Your task to perform on an android device: turn off javascript in the chrome app Image 0: 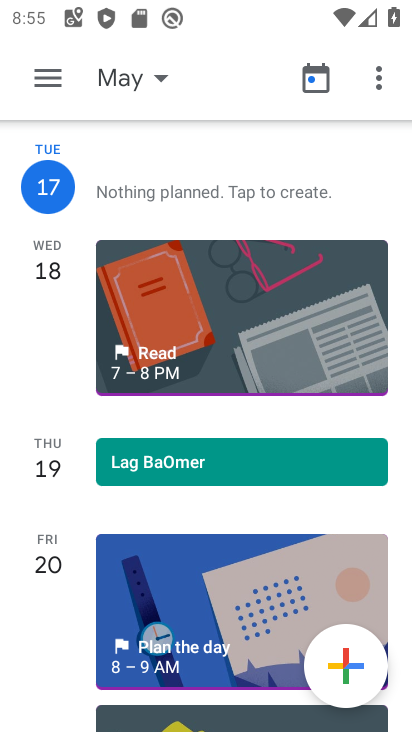
Step 0: press home button
Your task to perform on an android device: turn off javascript in the chrome app Image 1: 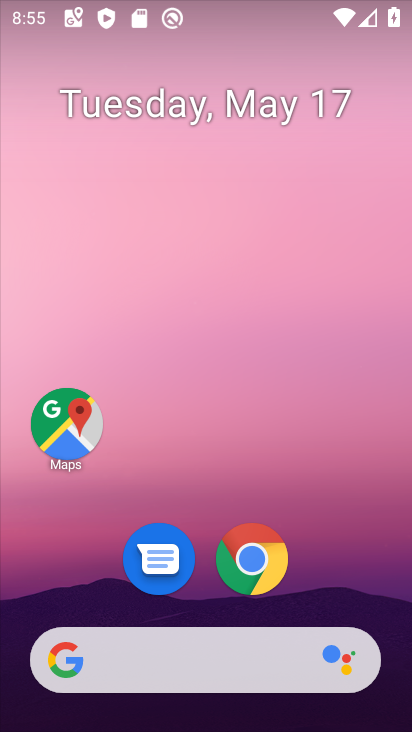
Step 1: click (248, 562)
Your task to perform on an android device: turn off javascript in the chrome app Image 2: 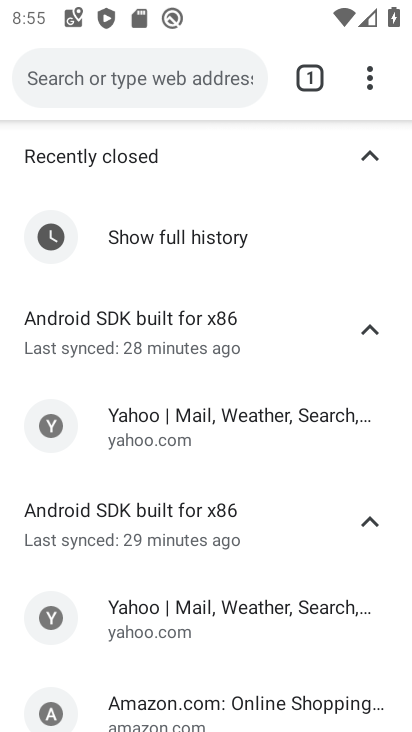
Step 2: click (367, 75)
Your task to perform on an android device: turn off javascript in the chrome app Image 3: 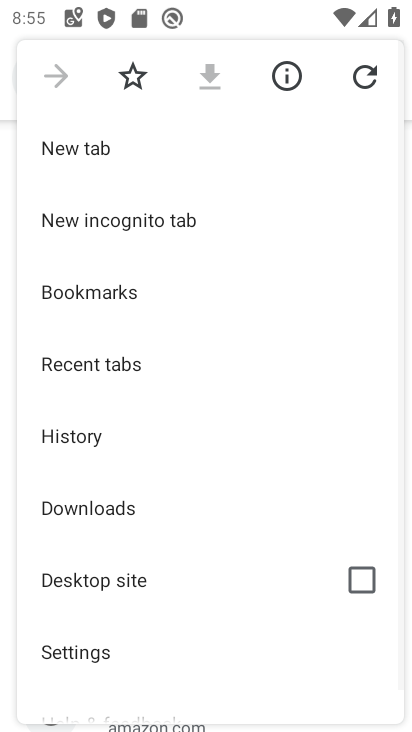
Step 3: click (89, 655)
Your task to perform on an android device: turn off javascript in the chrome app Image 4: 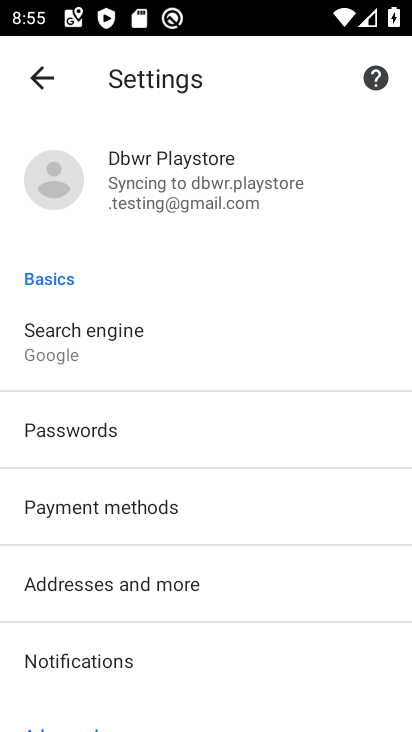
Step 4: drag from (146, 612) to (141, 4)
Your task to perform on an android device: turn off javascript in the chrome app Image 5: 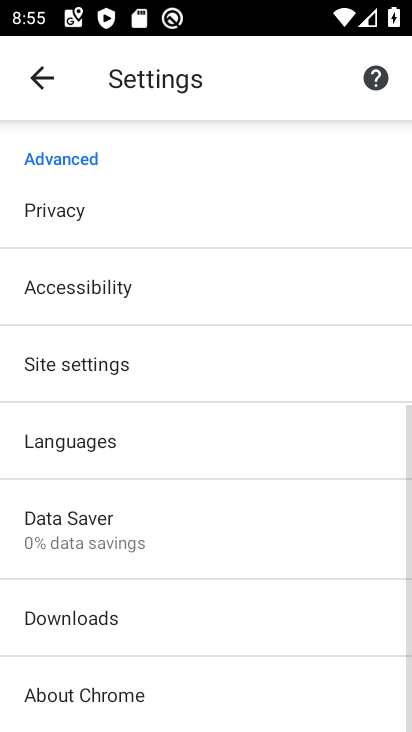
Step 5: click (129, 346)
Your task to perform on an android device: turn off javascript in the chrome app Image 6: 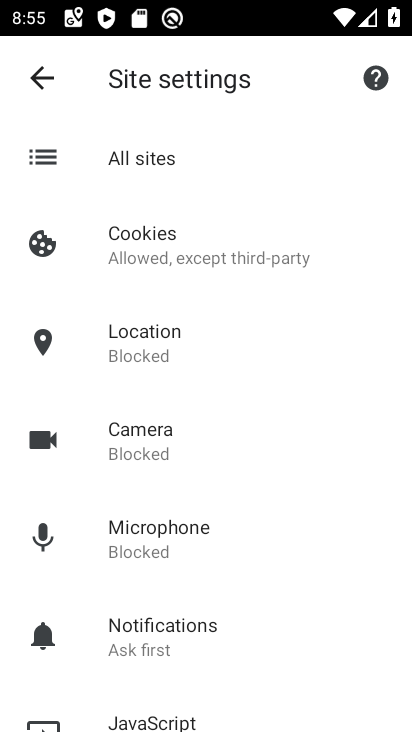
Step 6: click (199, 716)
Your task to perform on an android device: turn off javascript in the chrome app Image 7: 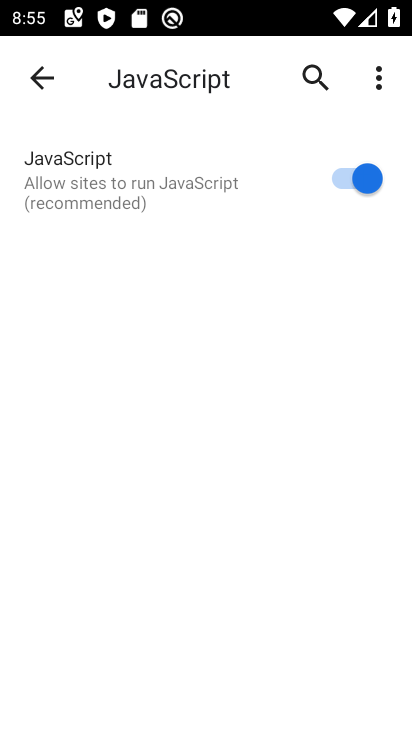
Step 7: click (366, 167)
Your task to perform on an android device: turn off javascript in the chrome app Image 8: 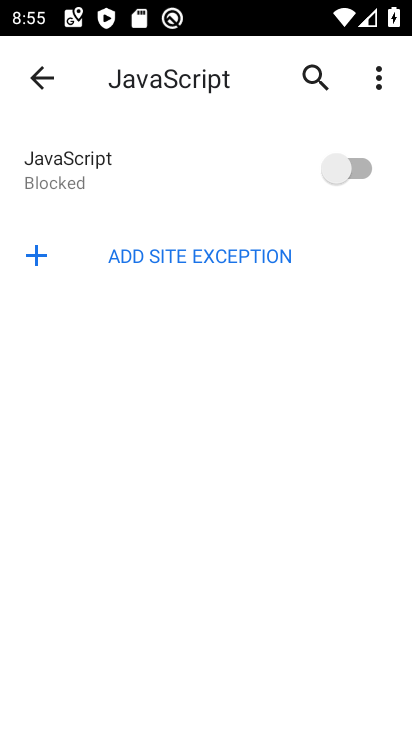
Step 8: task complete